Your task to perform on an android device: toggle sleep mode Image 0: 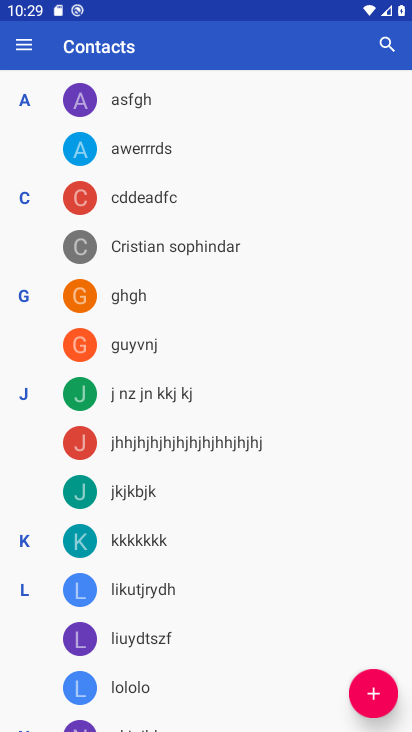
Step 0: press back button
Your task to perform on an android device: toggle sleep mode Image 1: 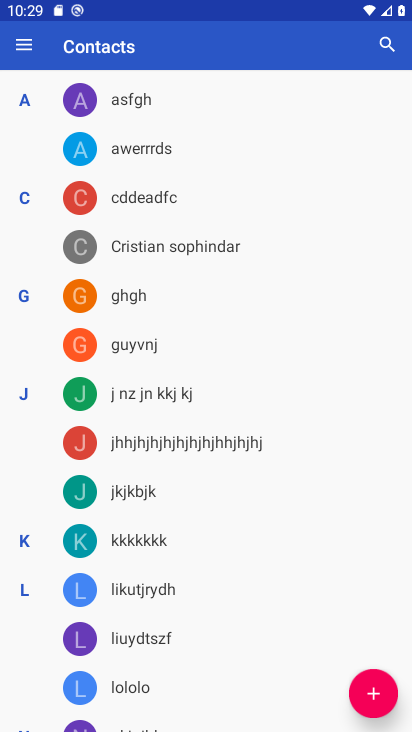
Step 1: press back button
Your task to perform on an android device: toggle sleep mode Image 2: 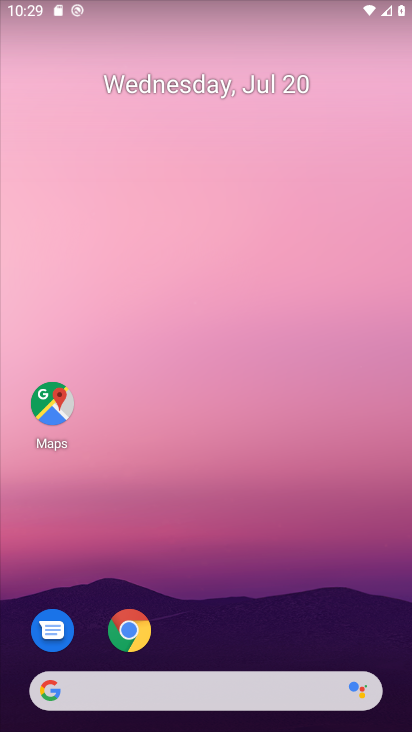
Step 2: click (345, 237)
Your task to perform on an android device: toggle sleep mode Image 3: 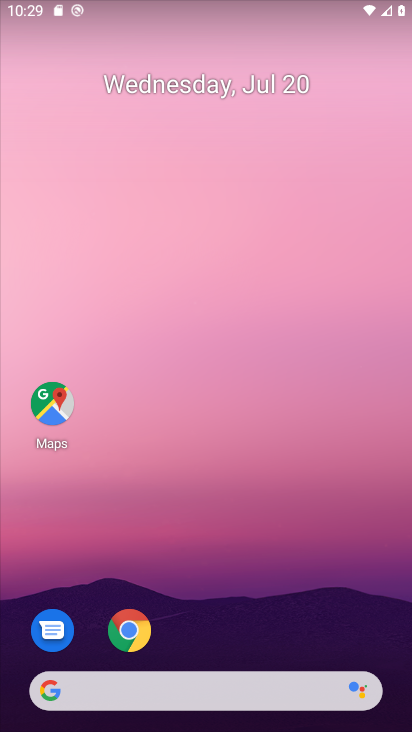
Step 3: drag from (201, 446) to (184, 219)
Your task to perform on an android device: toggle sleep mode Image 4: 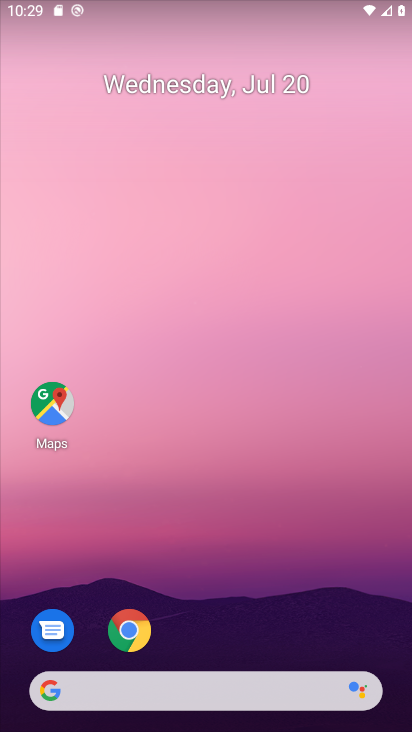
Step 4: click (166, 137)
Your task to perform on an android device: toggle sleep mode Image 5: 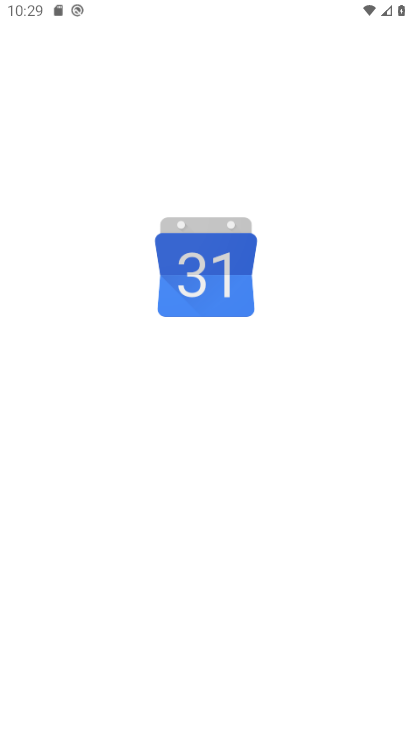
Step 5: drag from (187, 577) to (181, 223)
Your task to perform on an android device: toggle sleep mode Image 6: 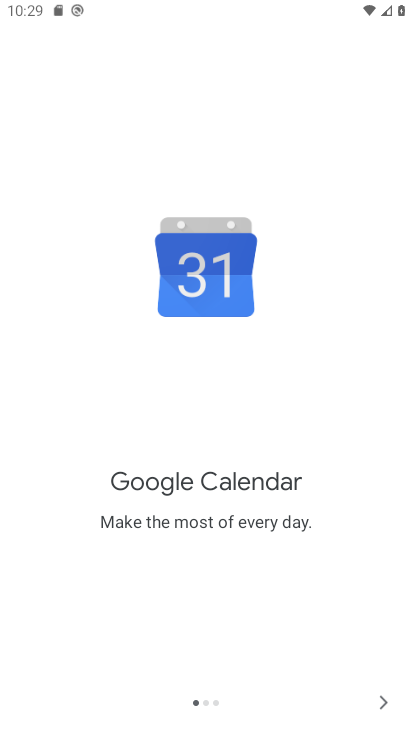
Step 6: click (381, 702)
Your task to perform on an android device: toggle sleep mode Image 7: 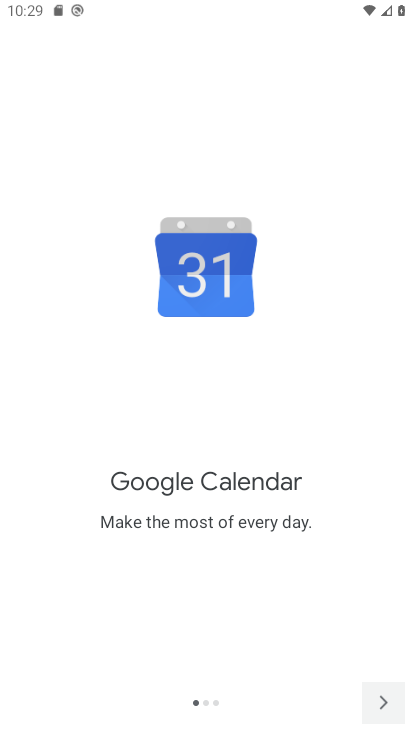
Step 7: click (381, 702)
Your task to perform on an android device: toggle sleep mode Image 8: 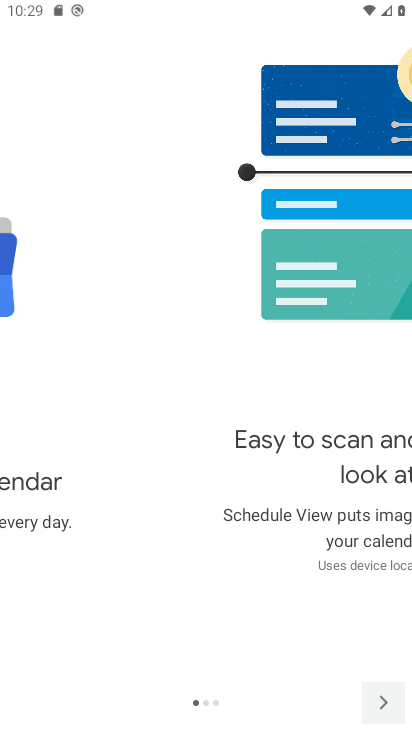
Step 8: click (381, 702)
Your task to perform on an android device: toggle sleep mode Image 9: 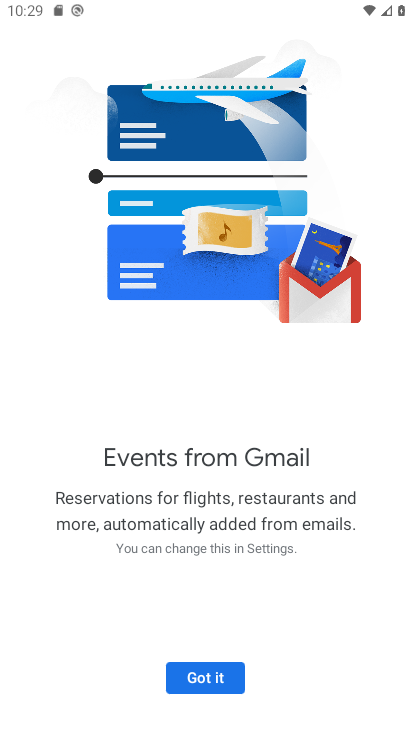
Step 9: click (199, 675)
Your task to perform on an android device: toggle sleep mode Image 10: 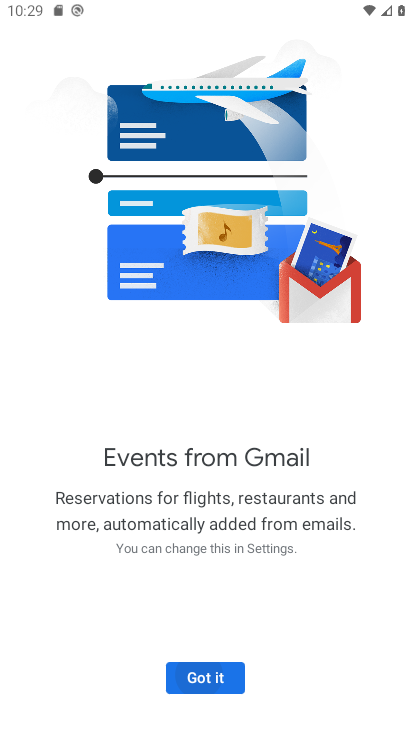
Step 10: click (199, 676)
Your task to perform on an android device: toggle sleep mode Image 11: 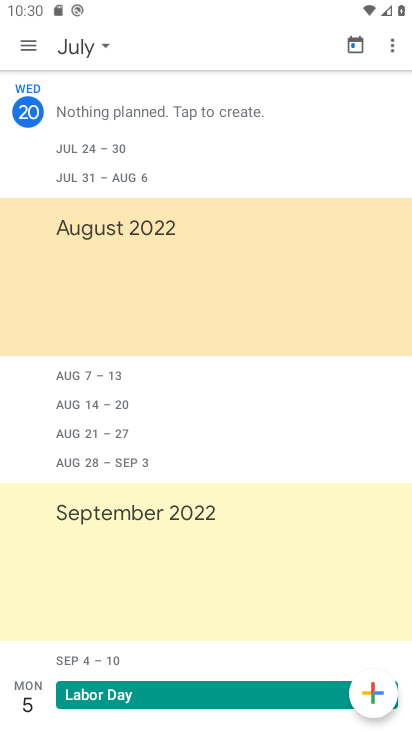
Step 11: press back button
Your task to perform on an android device: toggle sleep mode Image 12: 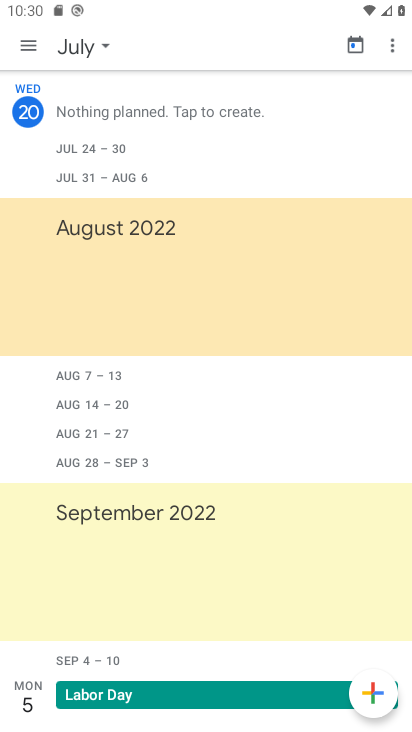
Step 12: press back button
Your task to perform on an android device: toggle sleep mode Image 13: 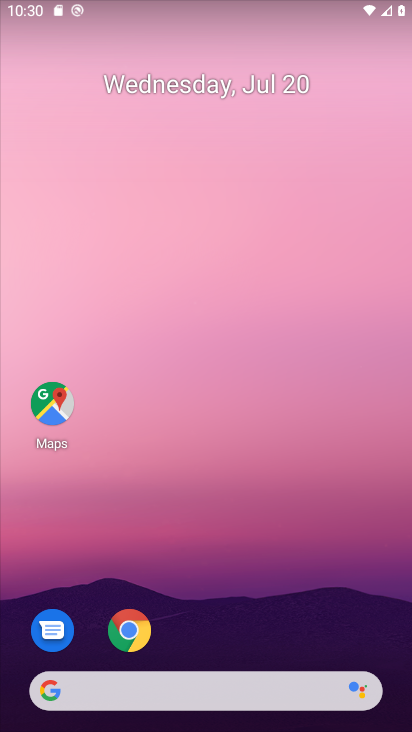
Step 13: drag from (245, 706) to (241, 159)
Your task to perform on an android device: toggle sleep mode Image 14: 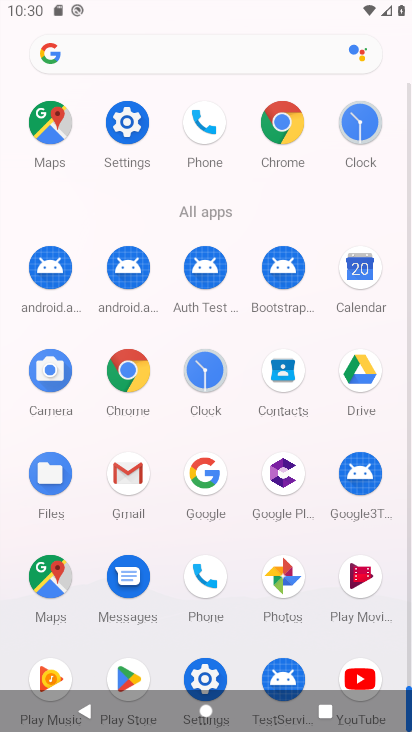
Step 14: click (118, 127)
Your task to perform on an android device: toggle sleep mode Image 15: 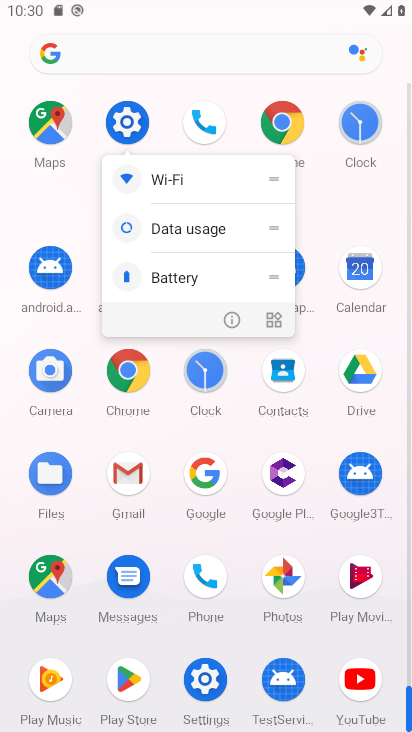
Step 15: click (128, 124)
Your task to perform on an android device: toggle sleep mode Image 16: 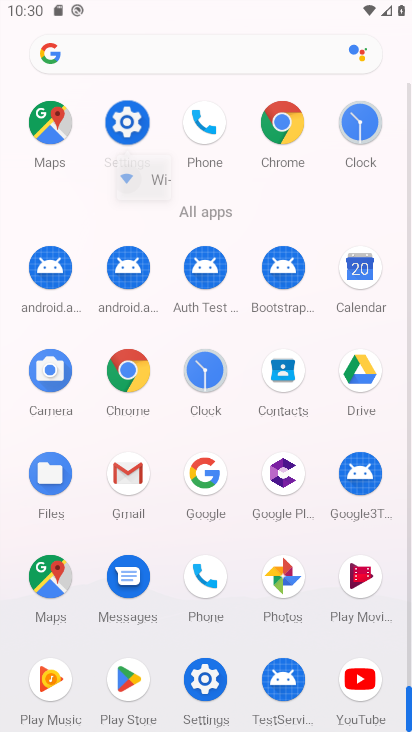
Step 16: click (131, 113)
Your task to perform on an android device: toggle sleep mode Image 17: 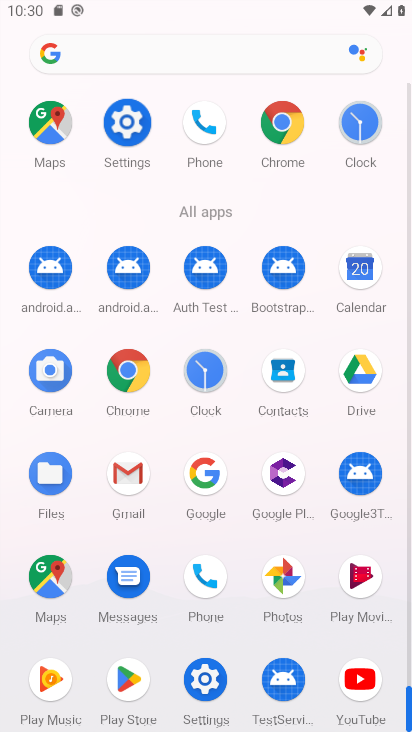
Step 17: click (131, 113)
Your task to perform on an android device: toggle sleep mode Image 18: 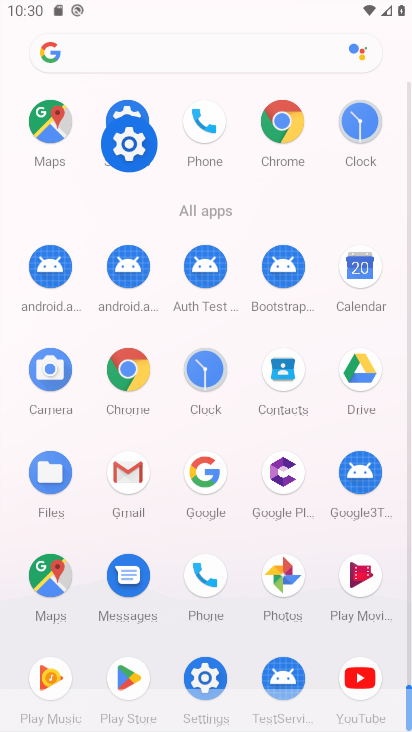
Step 18: click (132, 113)
Your task to perform on an android device: toggle sleep mode Image 19: 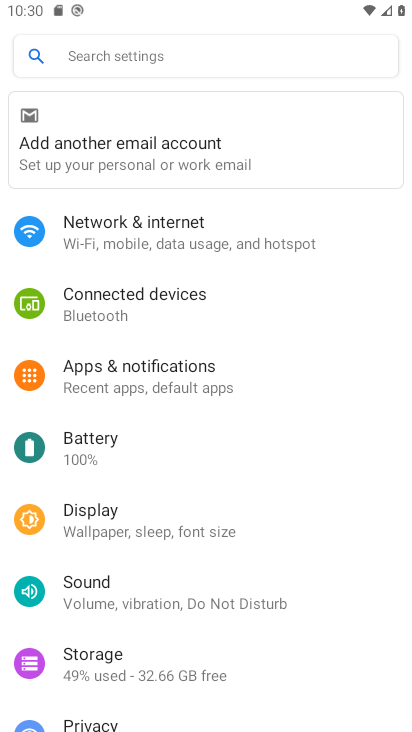
Step 19: click (81, 518)
Your task to perform on an android device: toggle sleep mode Image 20: 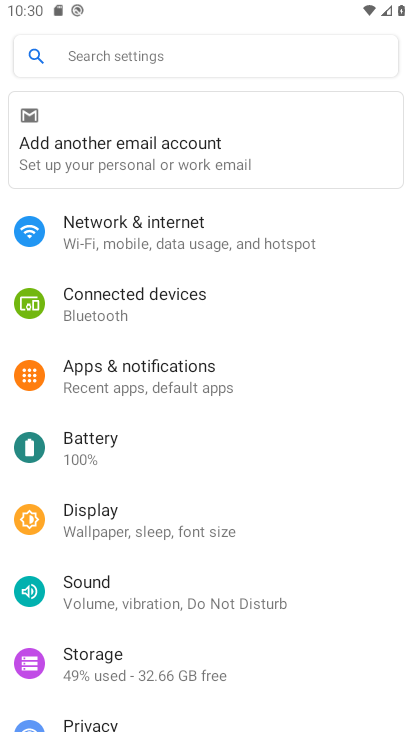
Step 20: click (81, 518)
Your task to perform on an android device: toggle sleep mode Image 21: 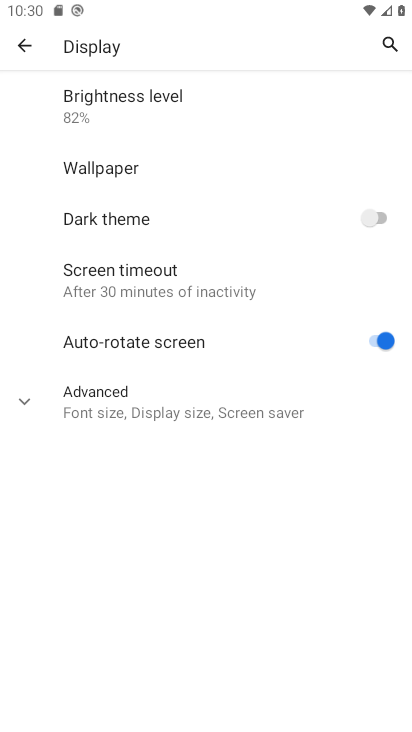
Step 21: click (26, 46)
Your task to perform on an android device: toggle sleep mode Image 22: 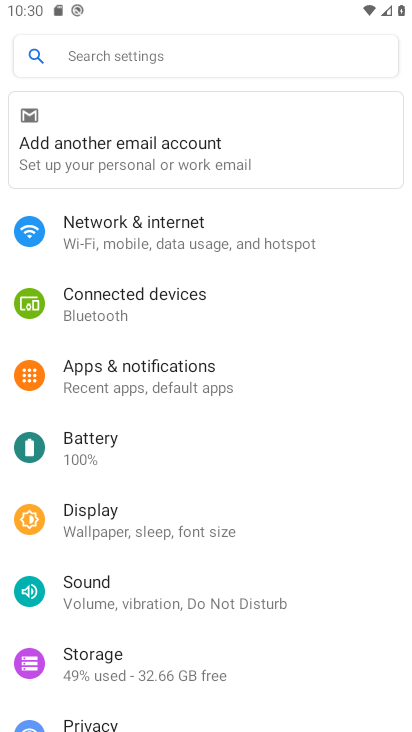
Step 22: click (120, 518)
Your task to perform on an android device: toggle sleep mode Image 23: 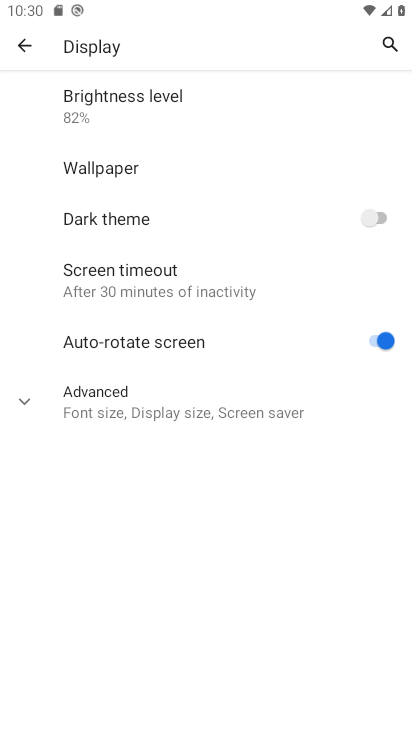
Step 23: click (129, 286)
Your task to perform on an android device: toggle sleep mode Image 24: 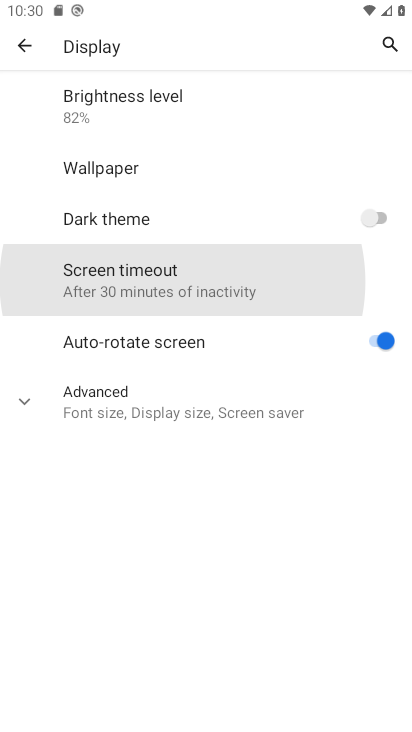
Step 24: click (130, 285)
Your task to perform on an android device: toggle sleep mode Image 25: 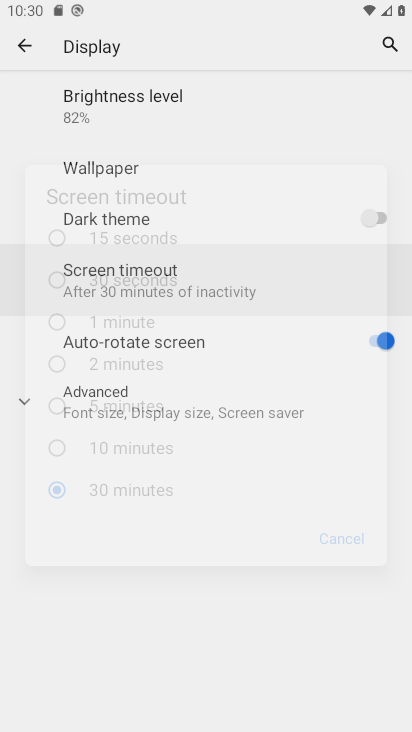
Step 25: click (132, 285)
Your task to perform on an android device: toggle sleep mode Image 26: 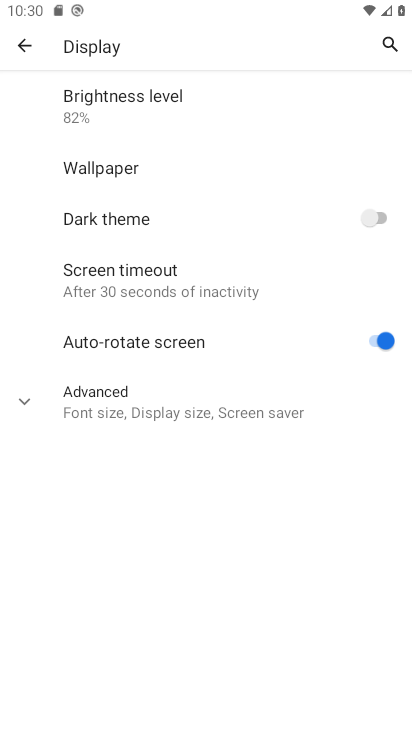
Step 26: click (155, 282)
Your task to perform on an android device: toggle sleep mode Image 27: 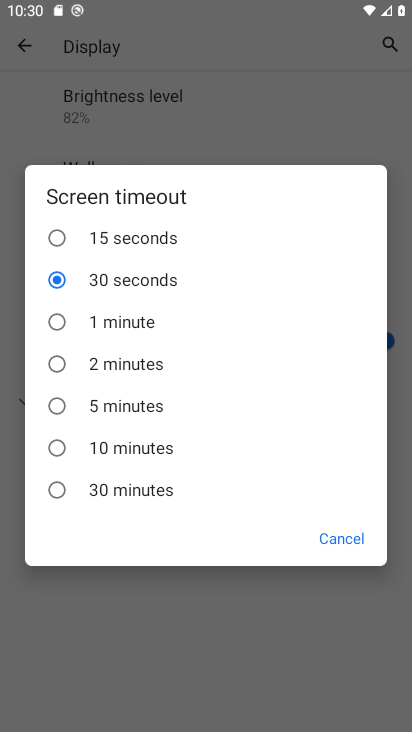
Step 27: click (62, 313)
Your task to perform on an android device: toggle sleep mode Image 28: 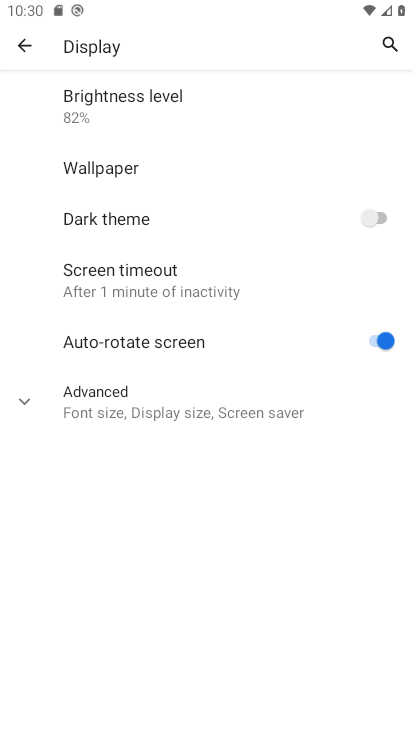
Step 28: task complete